Your task to perform on an android device: Do I have any events tomorrow? Image 0: 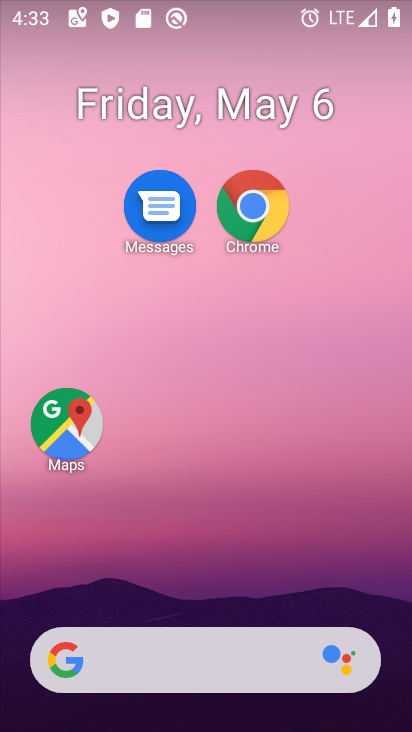
Step 0: drag from (269, 627) to (251, 290)
Your task to perform on an android device: Do I have any events tomorrow? Image 1: 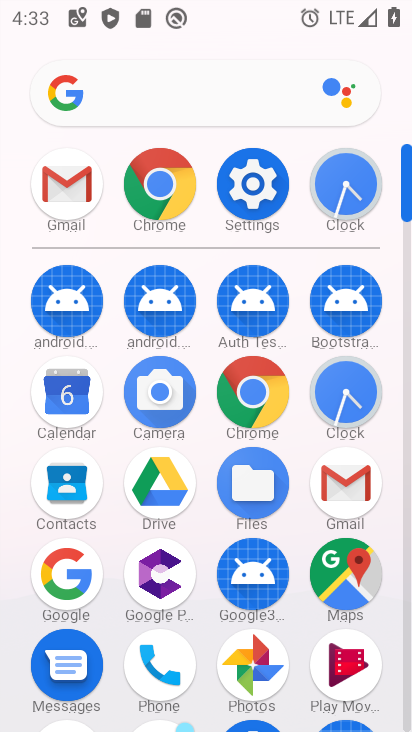
Step 1: click (55, 385)
Your task to perform on an android device: Do I have any events tomorrow? Image 2: 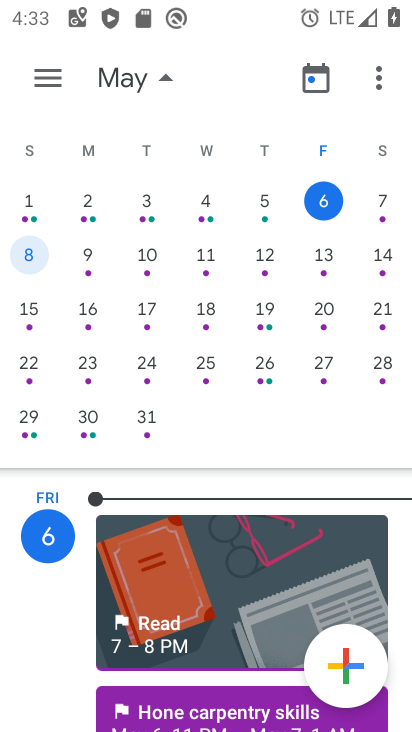
Step 2: click (379, 195)
Your task to perform on an android device: Do I have any events tomorrow? Image 3: 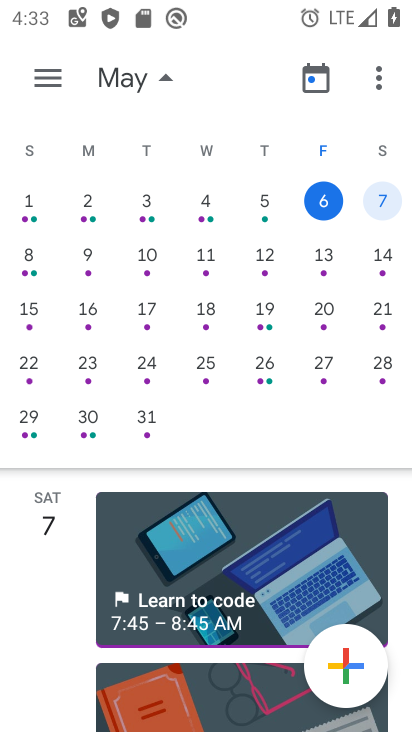
Step 3: task complete